Your task to perform on an android device: turn on showing notifications on the lock screen Image 0: 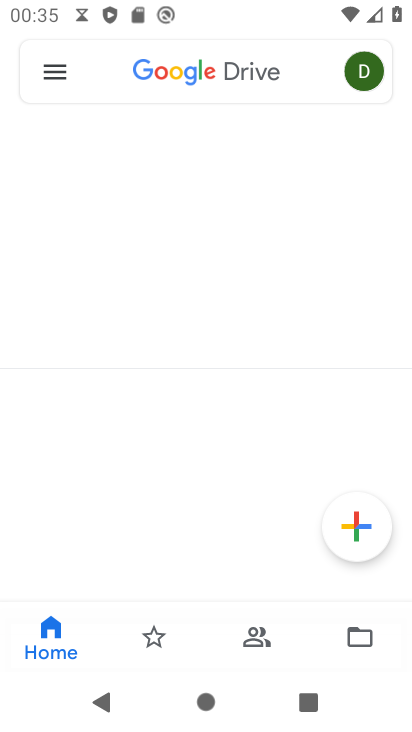
Step 0: press home button
Your task to perform on an android device: turn on showing notifications on the lock screen Image 1: 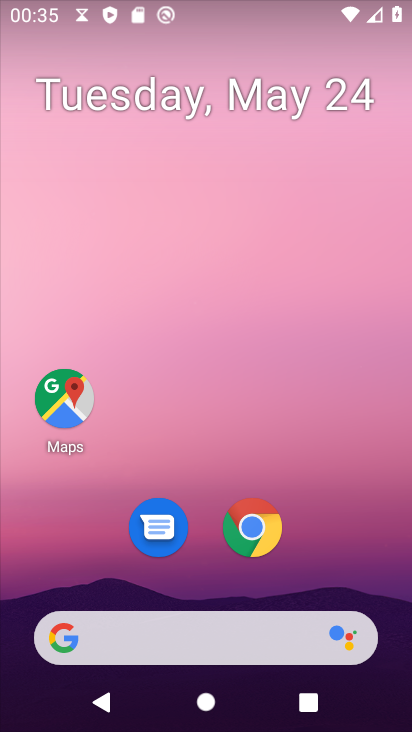
Step 1: drag from (211, 620) to (338, 175)
Your task to perform on an android device: turn on showing notifications on the lock screen Image 2: 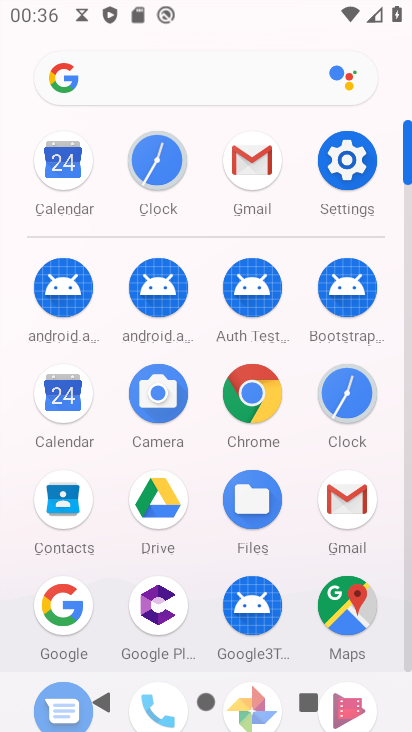
Step 2: click (350, 176)
Your task to perform on an android device: turn on showing notifications on the lock screen Image 3: 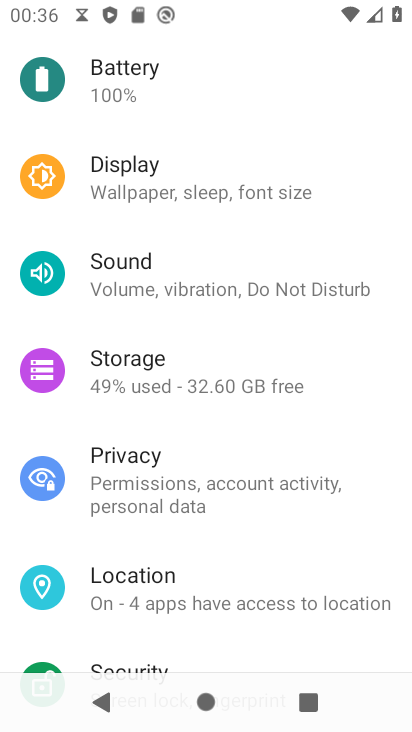
Step 3: drag from (329, 153) to (342, 608)
Your task to perform on an android device: turn on showing notifications on the lock screen Image 4: 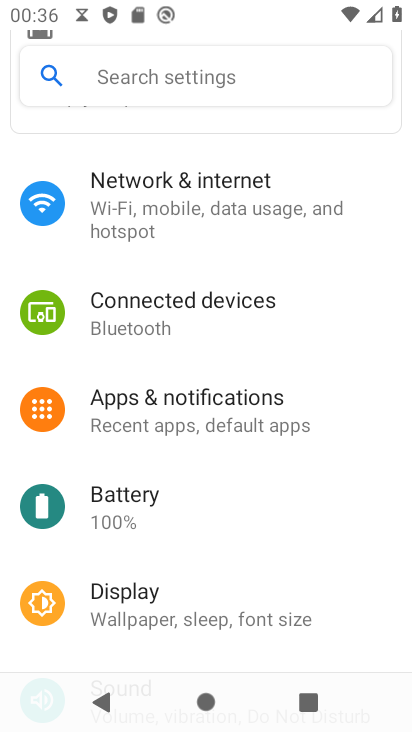
Step 4: click (249, 417)
Your task to perform on an android device: turn on showing notifications on the lock screen Image 5: 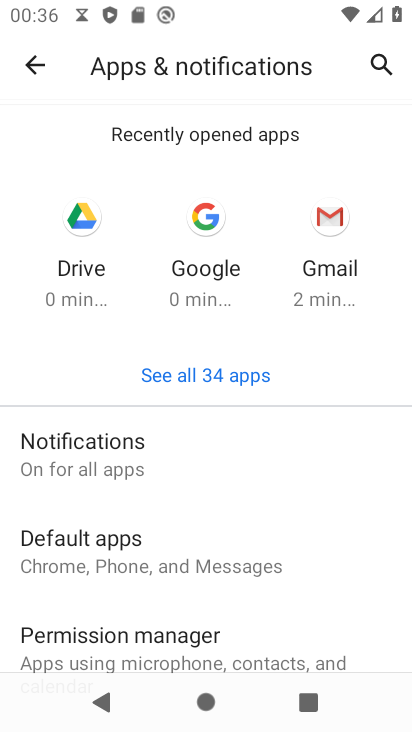
Step 5: click (122, 465)
Your task to perform on an android device: turn on showing notifications on the lock screen Image 6: 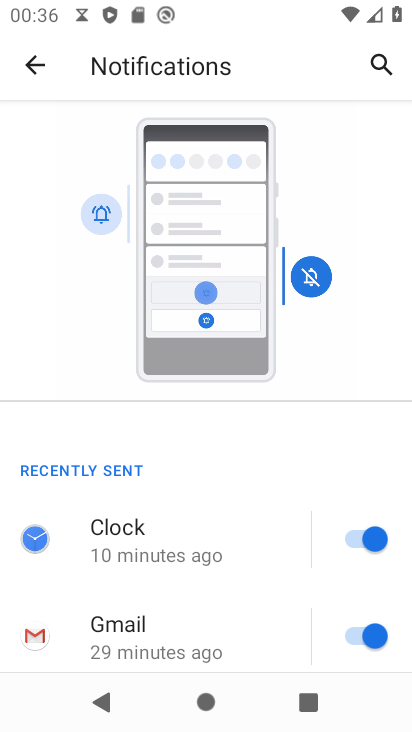
Step 6: drag from (222, 622) to (364, 183)
Your task to perform on an android device: turn on showing notifications on the lock screen Image 7: 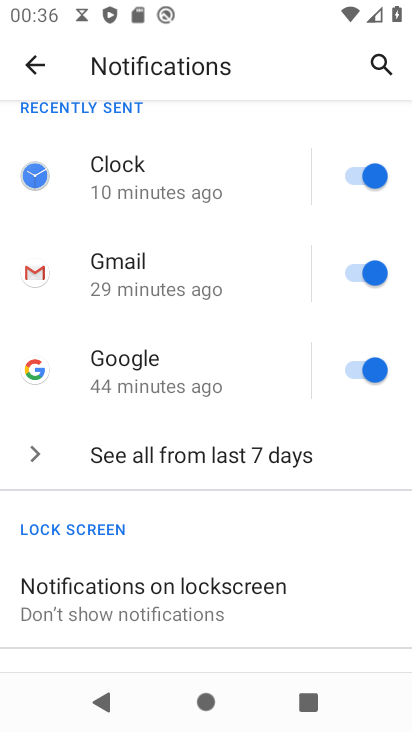
Step 7: drag from (196, 540) to (338, 227)
Your task to perform on an android device: turn on showing notifications on the lock screen Image 8: 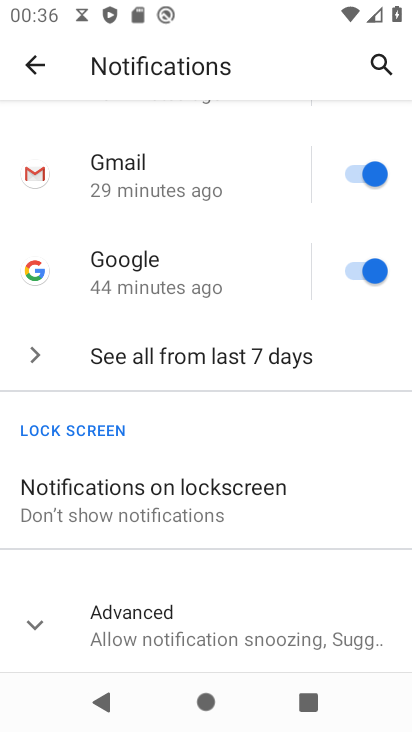
Step 8: click (193, 504)
Your task to perform on an android device: turn on showing notifications on the lock screen Image 9: 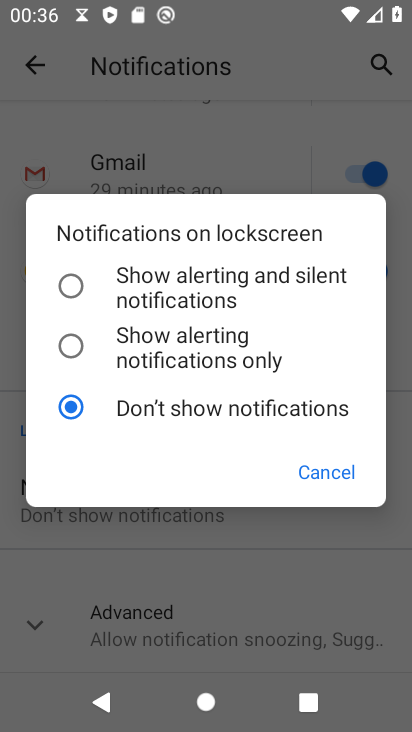
Step 9: click (77, 281)
Your task to perform on an android device: turn on showing notifications on the lock screen Image 10: 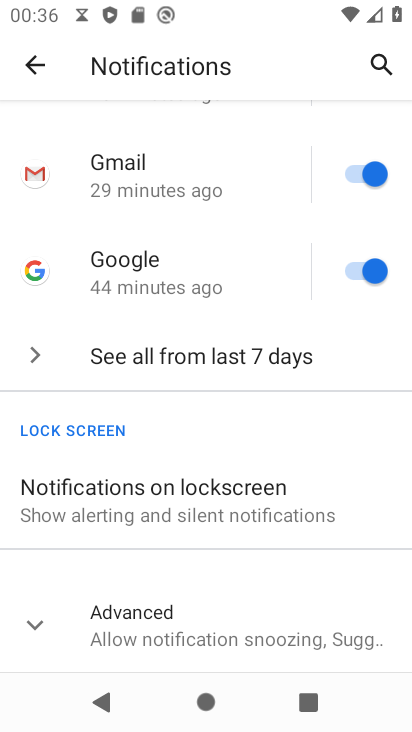
Step 10: task complete